Your task to perform on an android device: Go to Wikipedia Image 0: 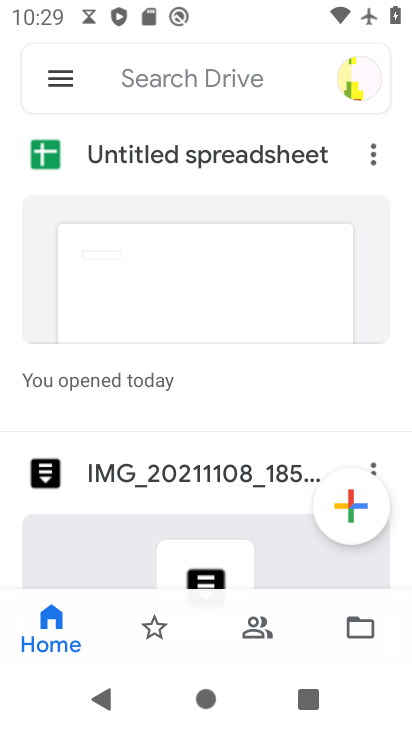
Step 0: press home button
Your task to perform on an android device: Go to Wikipedia Image 1: 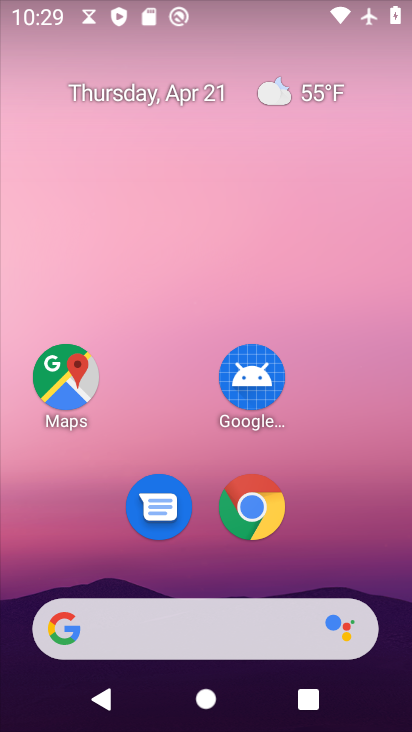
Step 1: drag from (351, 483) to (318, 181)
Your task to perform on an android device: Go to Wikipedia Image 2: 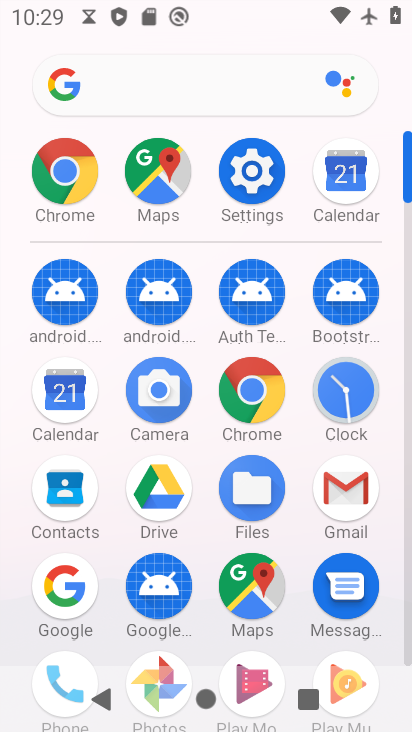
Step 2: click (254, 379)
Your task to perform on an android device: Go to Wikipedia Image 3: 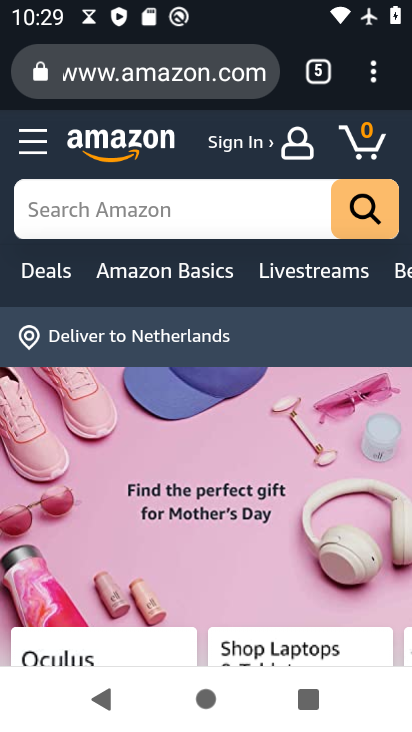
Step 3: click (369, 73)
Your task to perform on an android device: Go to Wikipedia Image 4: 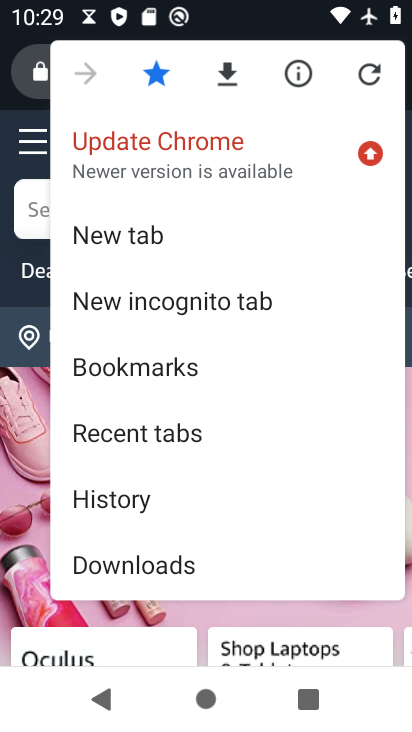
Step 4: click (173, 229)
Your task to perform on an android device: Go to Wikipedia Image 5: 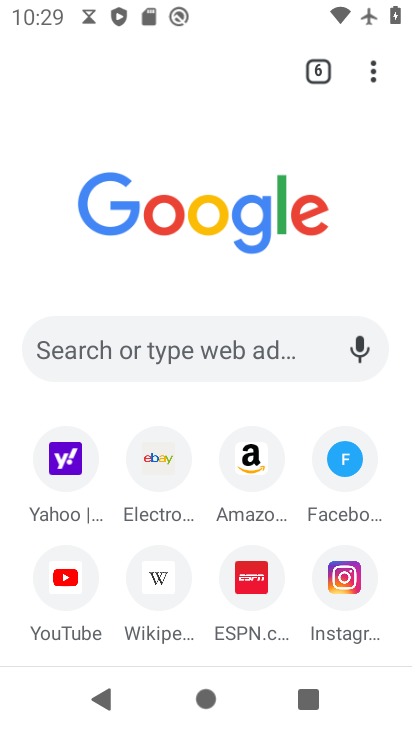
Step 5: click (155, 573)
Your task to perform on an android device: Go to Wikipedia Image 6: 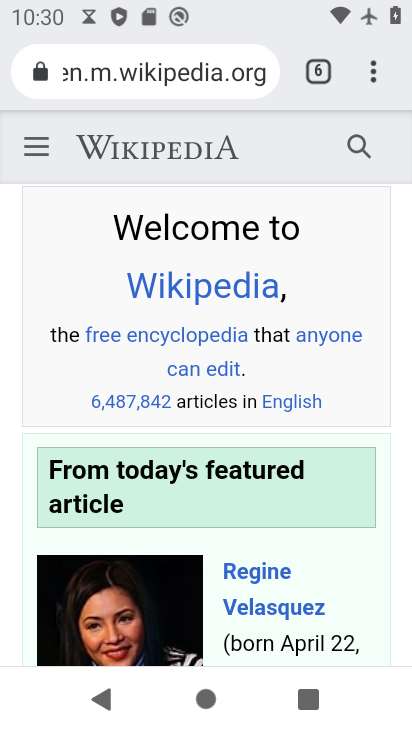
Step 6: task complete